Your task to perform on an android device: Go to Wikipedia Image 0: 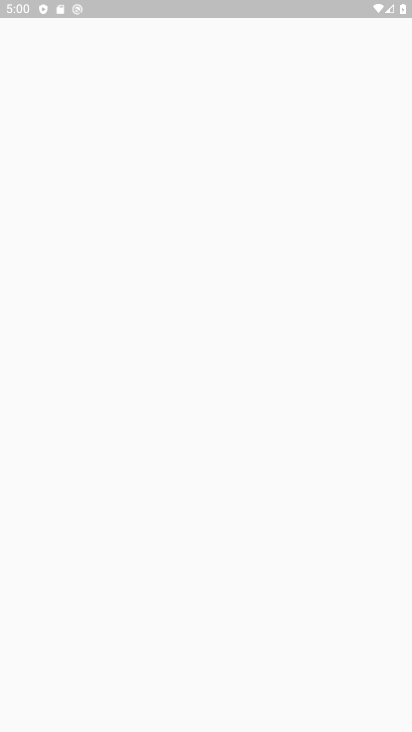
Step 0: press home button
Your task to perform on an android device: Go to Wikipedia Image 1: 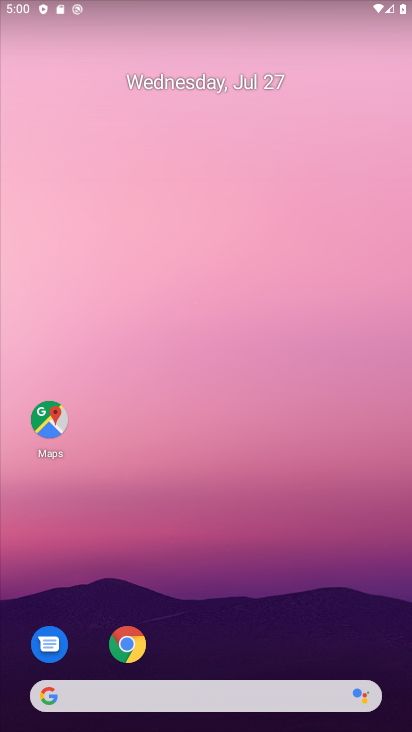
Step 1: click (130, 653)
Your task to perform on an android device: Go to Wikipedia Image 2: 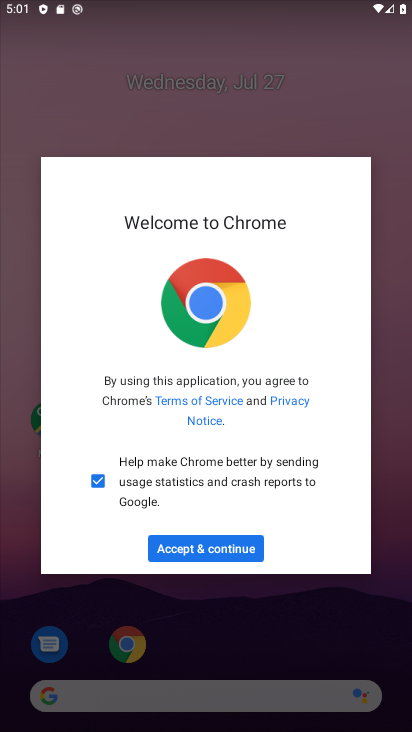
Step 2: click (234, 554)
Your task to perform on an android device: Go to Wikipedia Image 3: 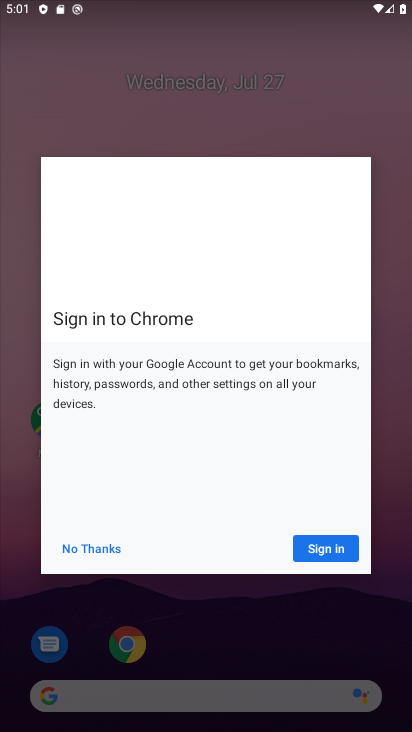
Step 3: click (79, 551)
Your task to perform on an android device: Go to Wikipedia Image 4: 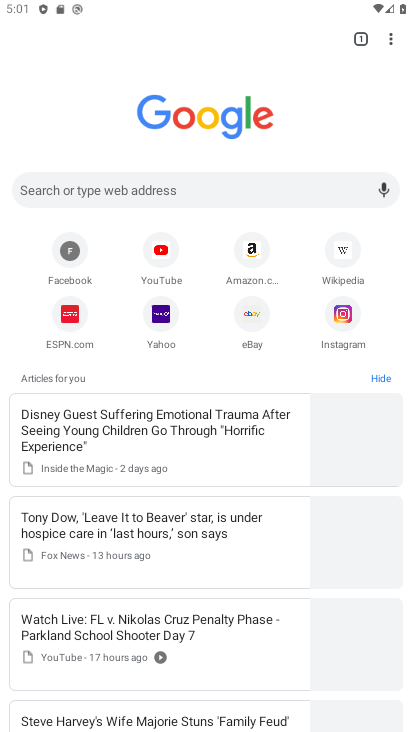
Step 4: click (331, 277)
Your task to perform on an android device: Go to Wikipedia Image 5: 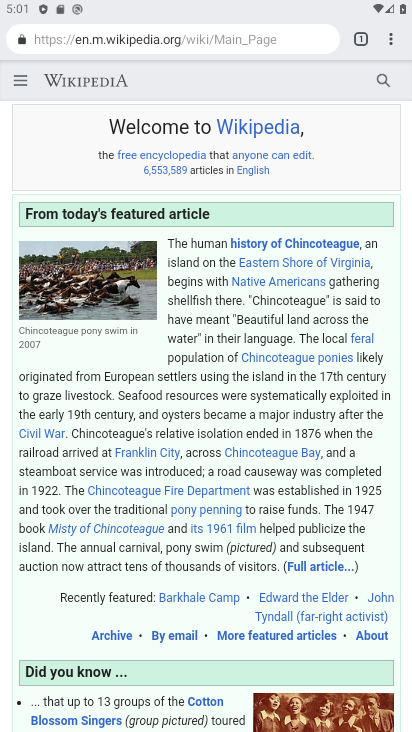
Step 5: task complete